Your task to perform on an android device: Turn on the flashlight Image 0: 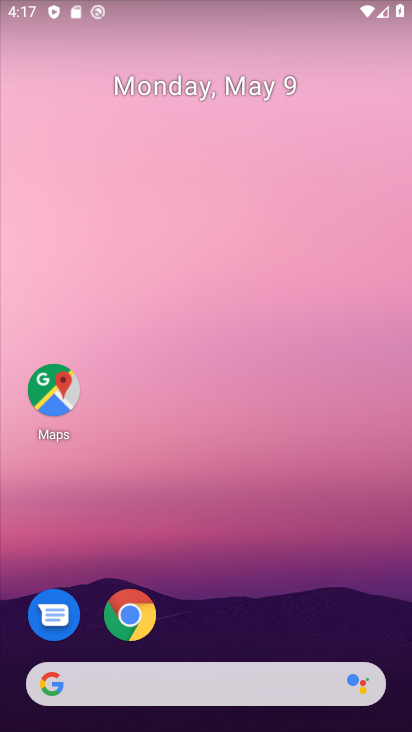
Step 0: drag from (374, 8) to (295, 629)
Your task to perform on an android device: Turn on the flashlight Image 1: 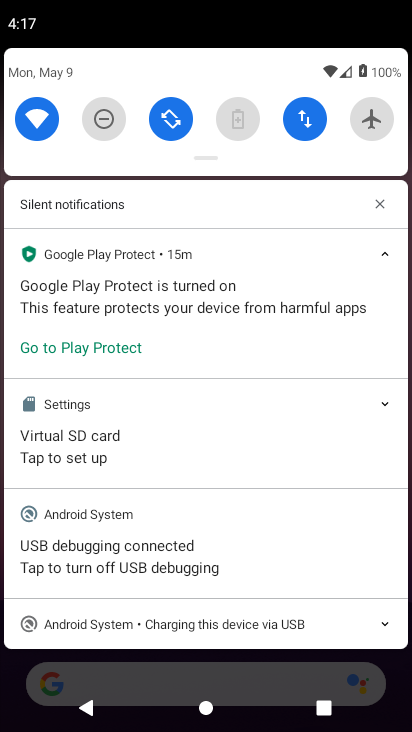
Step 1: task complete